Your task to perform on an android device: move a message to another label in the gmail app Image 0: 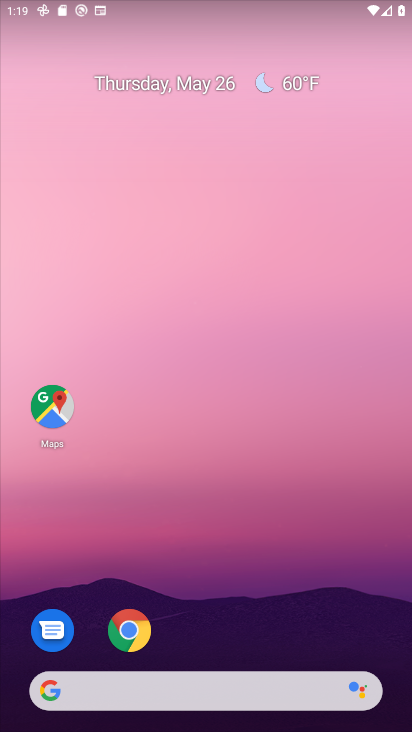
Step 0: drag from (342, 583) to (385, 47)
Your task to perform on an android device: move a message to another label in the gmail app Image 1: 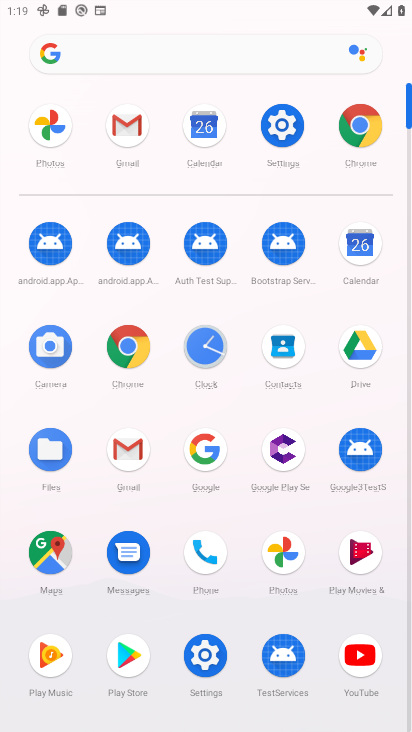
Step 1: click (126, 447)
Your task to perform on an android device: move a message to another label in the gmail app Image 2: 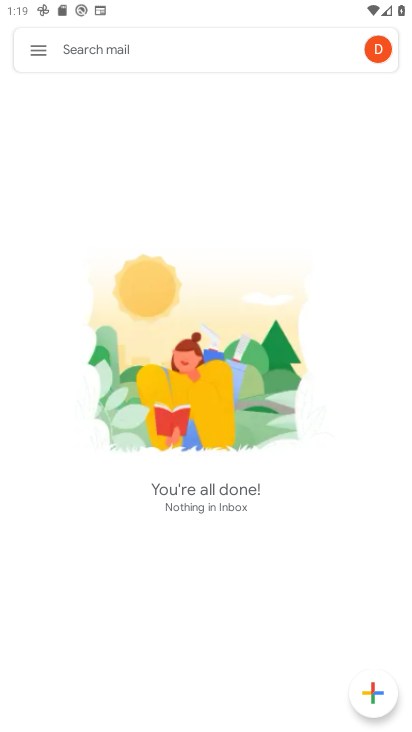
Step 2: task complete